Your task to perform on an android device: Add "razer kraken" to the cart on target Image 0: 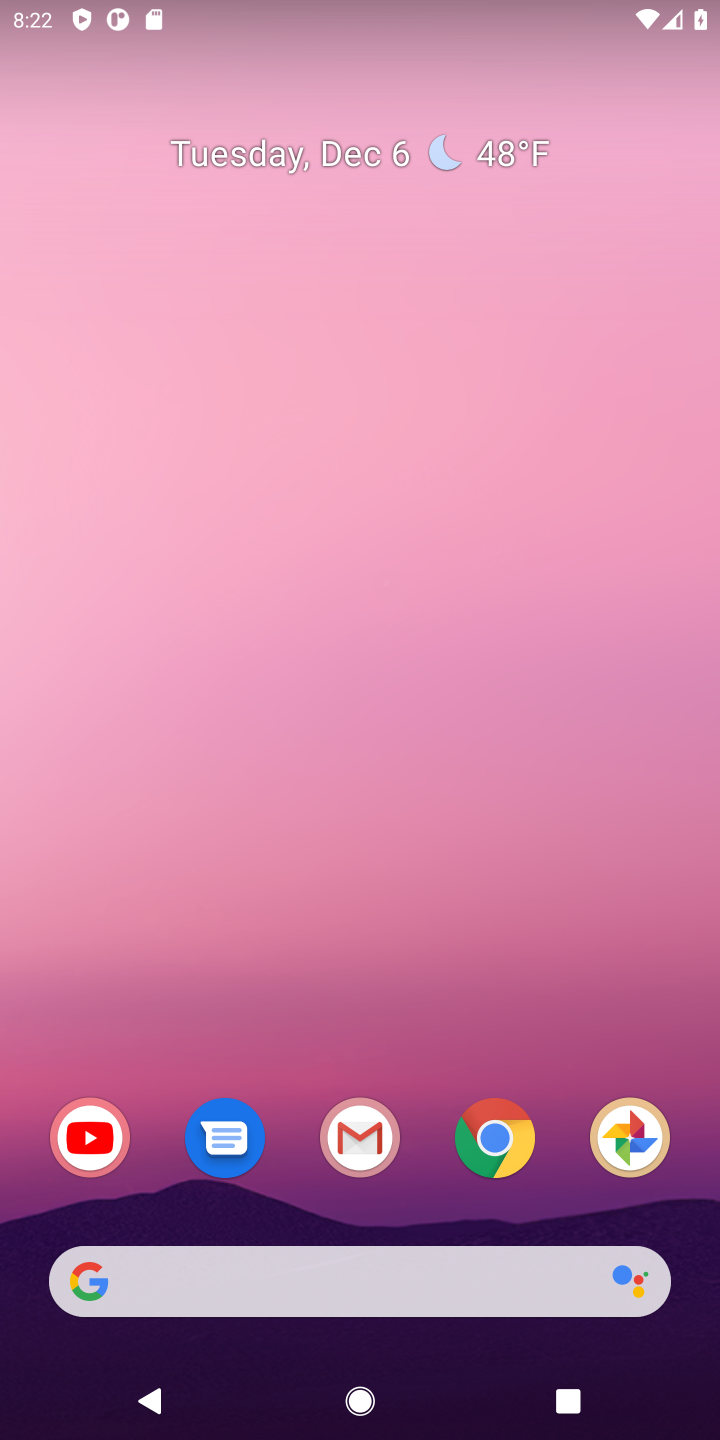
Step 0: click (492, 1150)
Your task to perform on an android device: Add "razer kraken" to the cart on target Image 1: 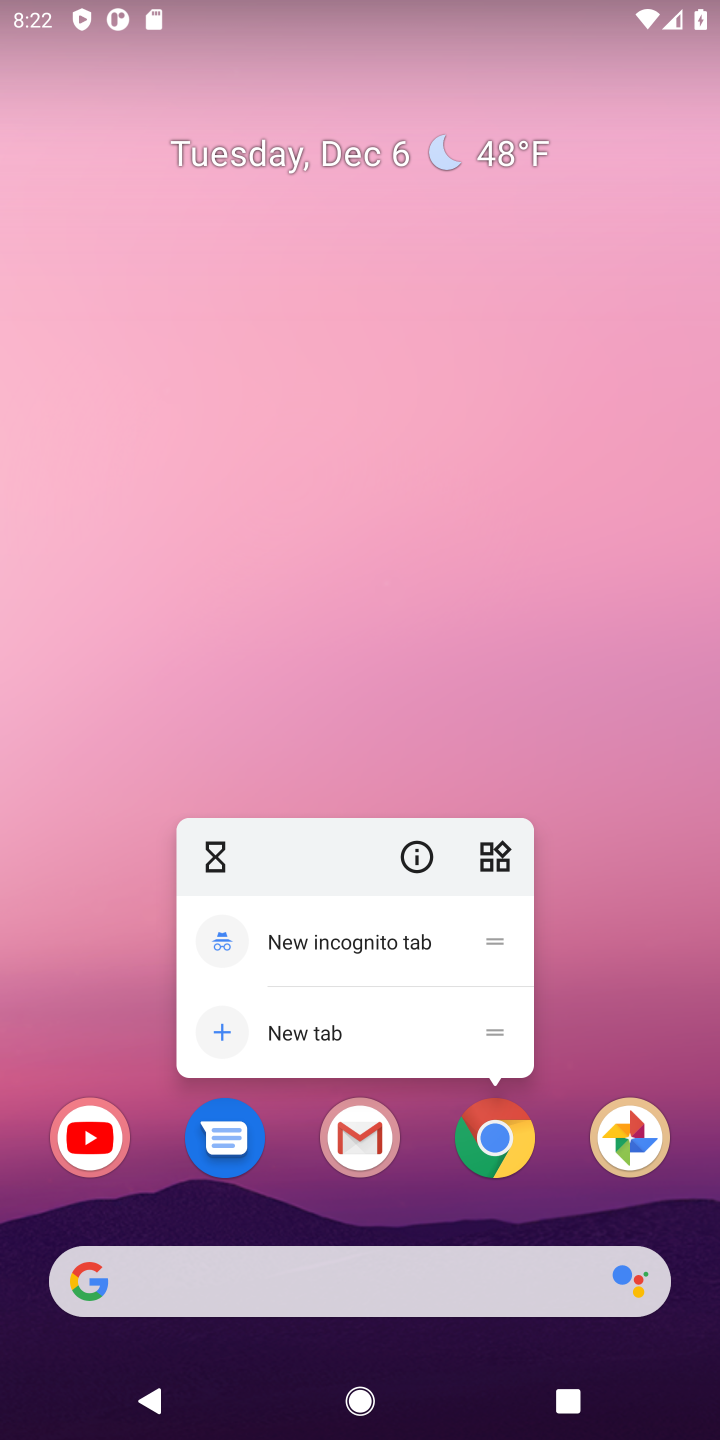
Step 1: click (492, 1150)
Your task to perform on an android device: Add "razer kraken" to the cart on target Image 2: 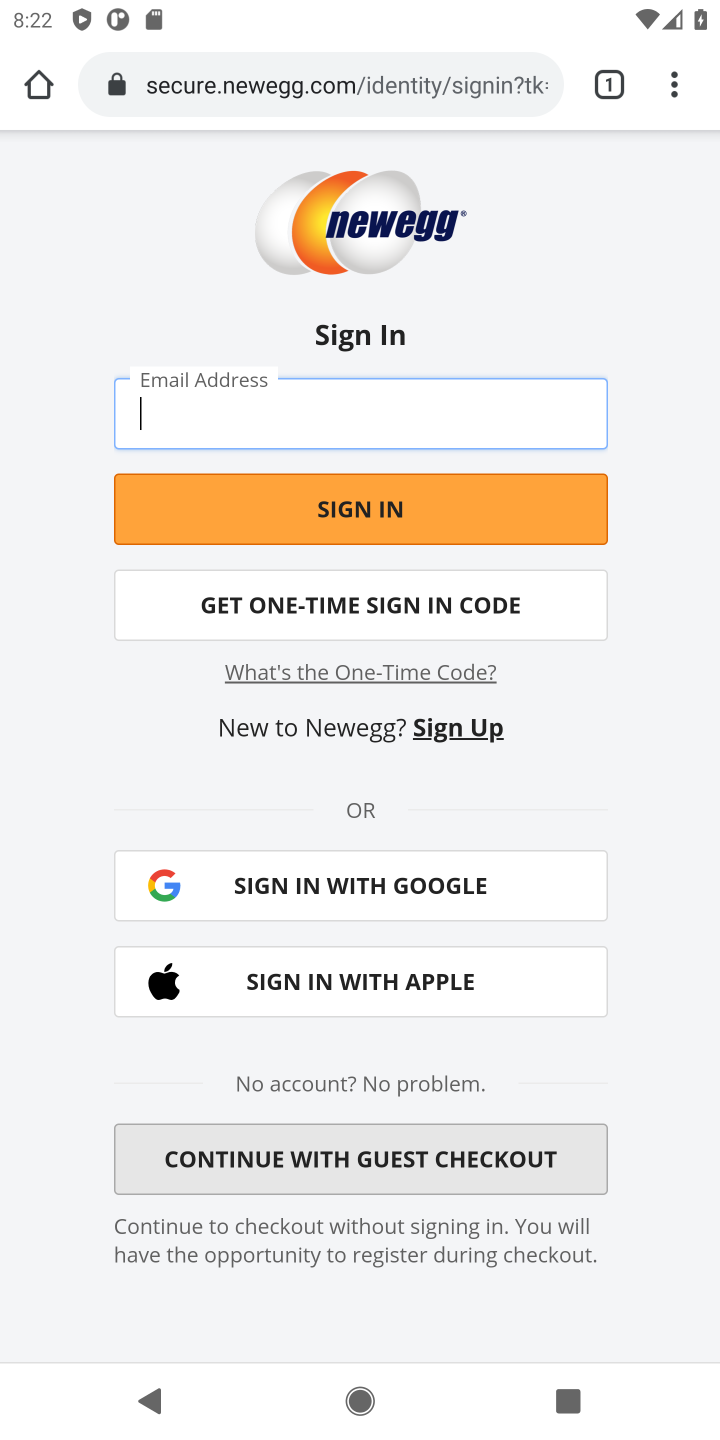
Step 2: click (313, 74)
Your task to perform on an android device: Add "razer kraken" to the cart on target Image 3: 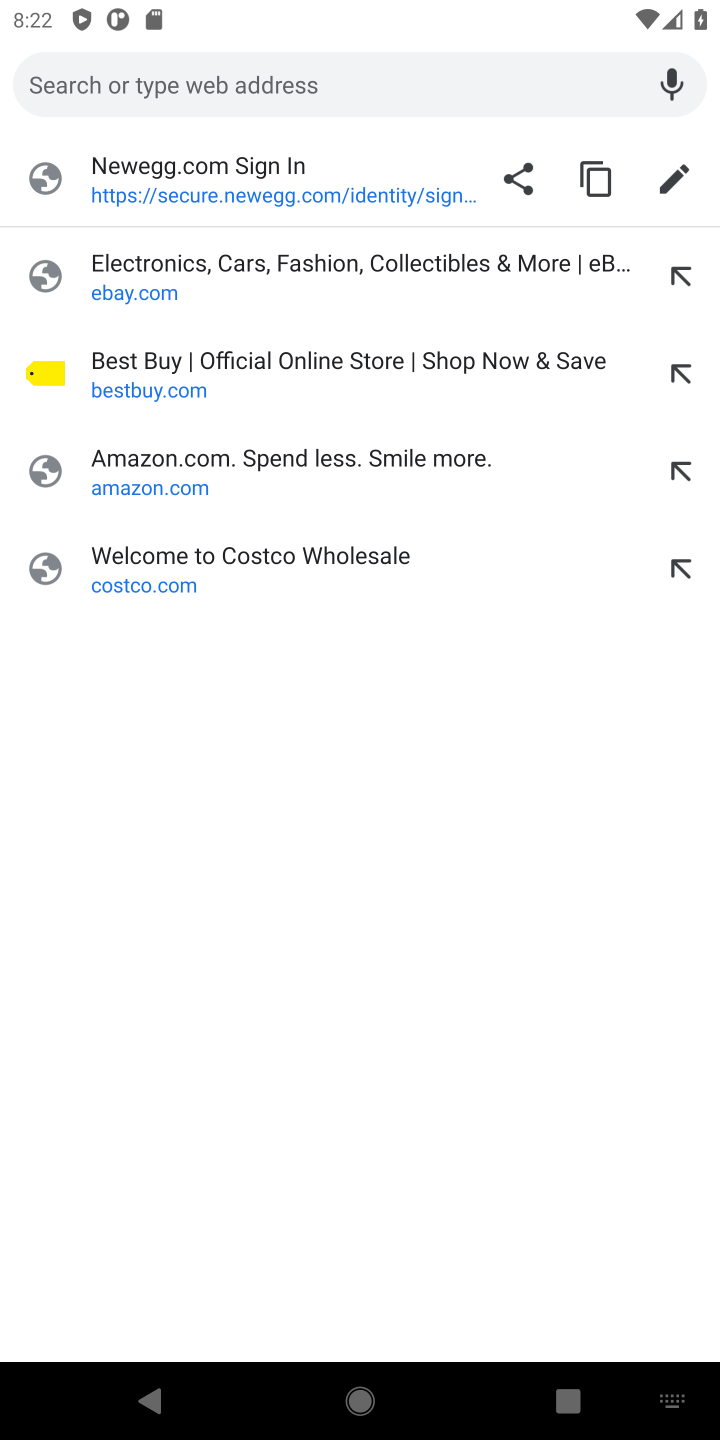
Step 3: type "target.com"
Your task to perform on an android device: Add "razer kraken" to the cart on target Image 4: 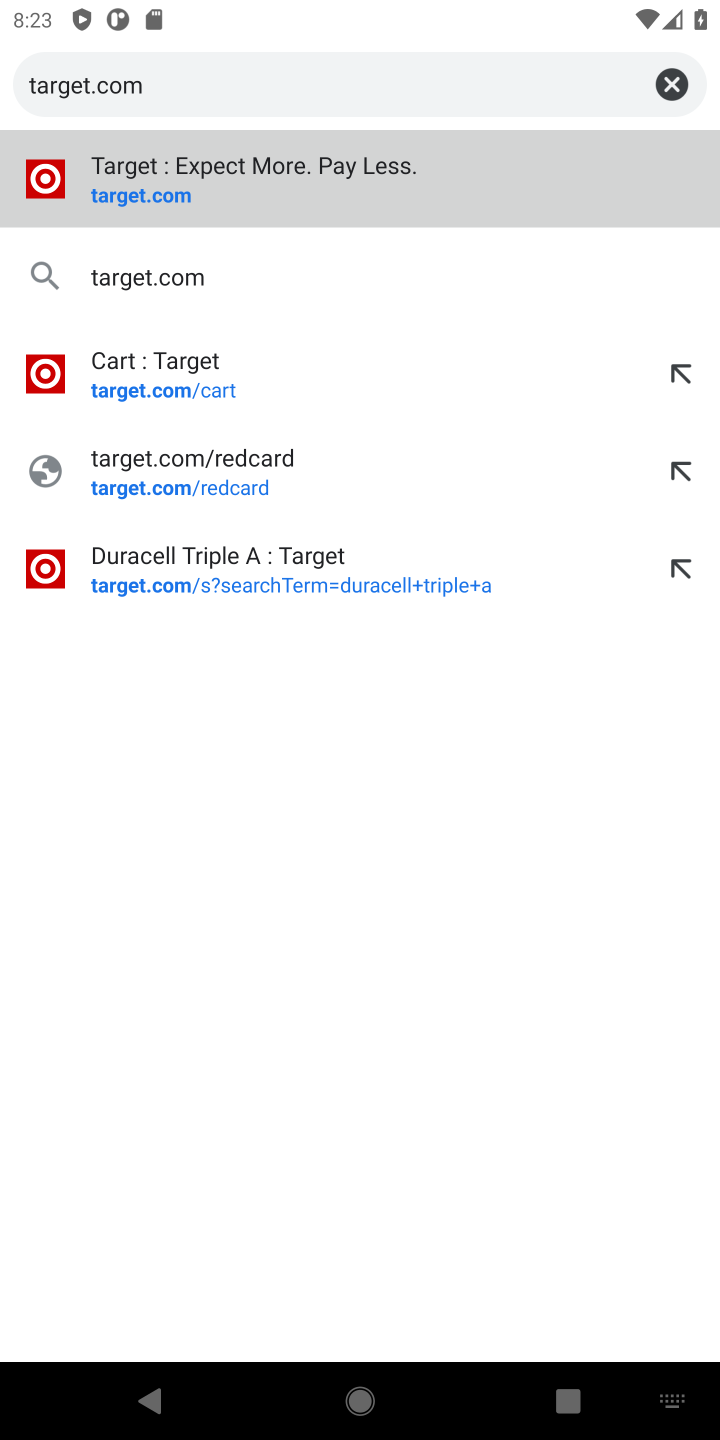
Step 4: click (150, 193)
Your task to perform on an android device: Add "razer kraken" to the cart on target Image 5: 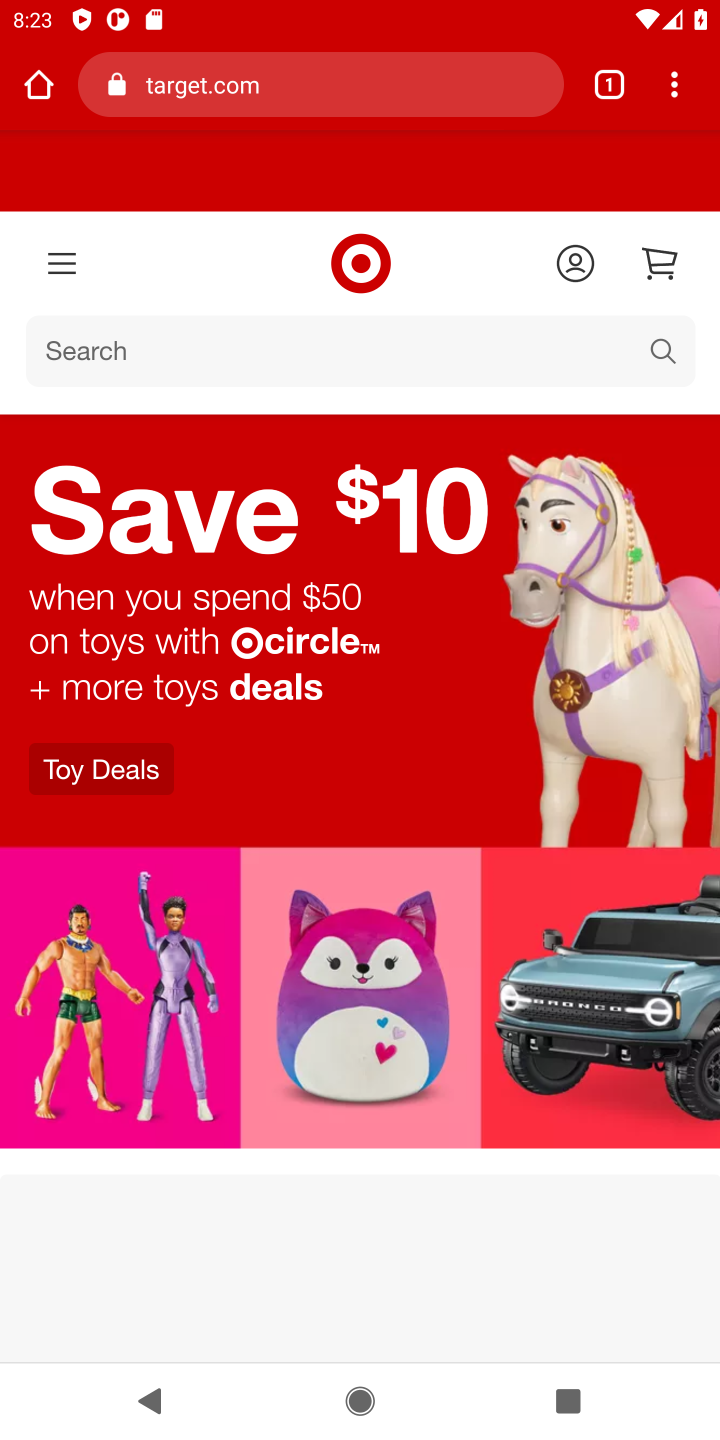
Step 5: click (121, 345)
Your task to perform on an android device: Add "razer kraken" to the cart on target Image 6: 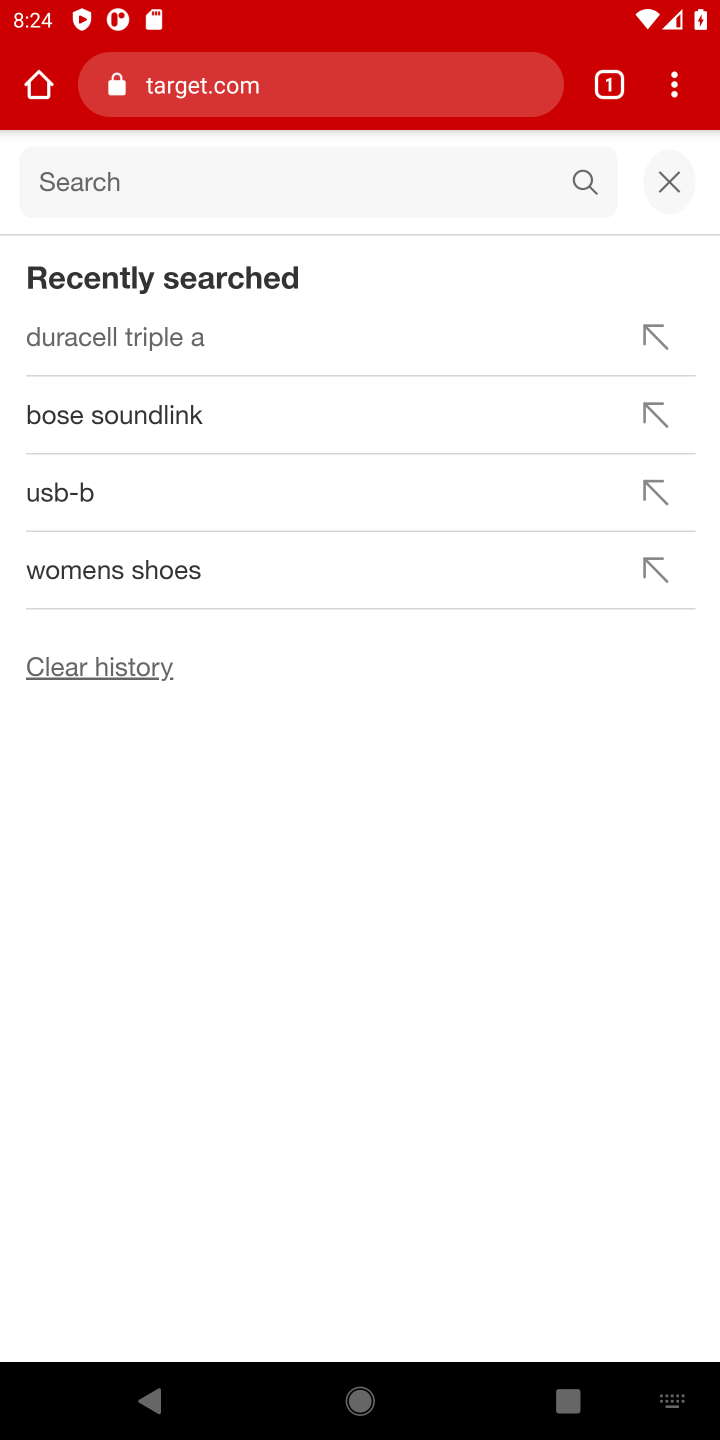
Step 6: type "razer kraken"
Your task to perform on an android device: Add "razer kraken" to the cart on target Image 7: 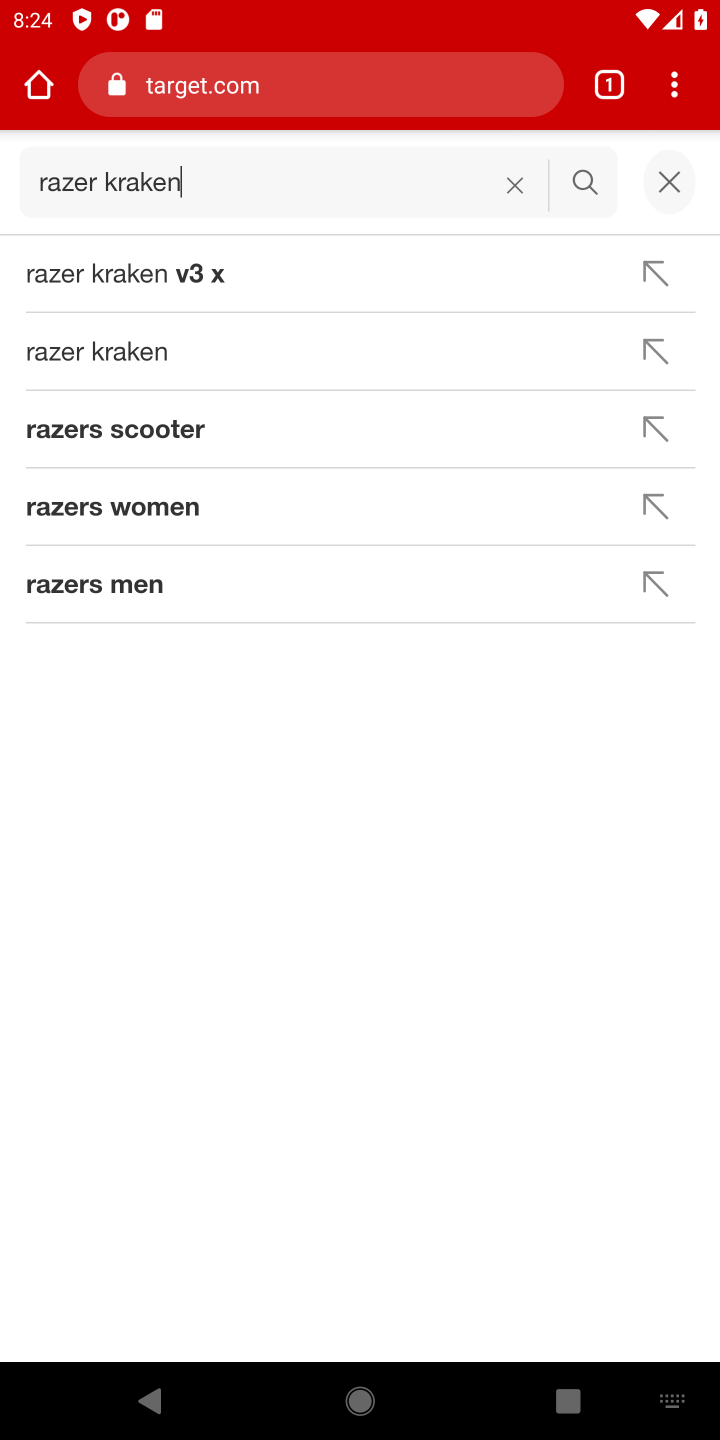
Step 7: click (113, 374)
Your task to perform on an android device: Add "razer kraken" to the cart on target Image 8: 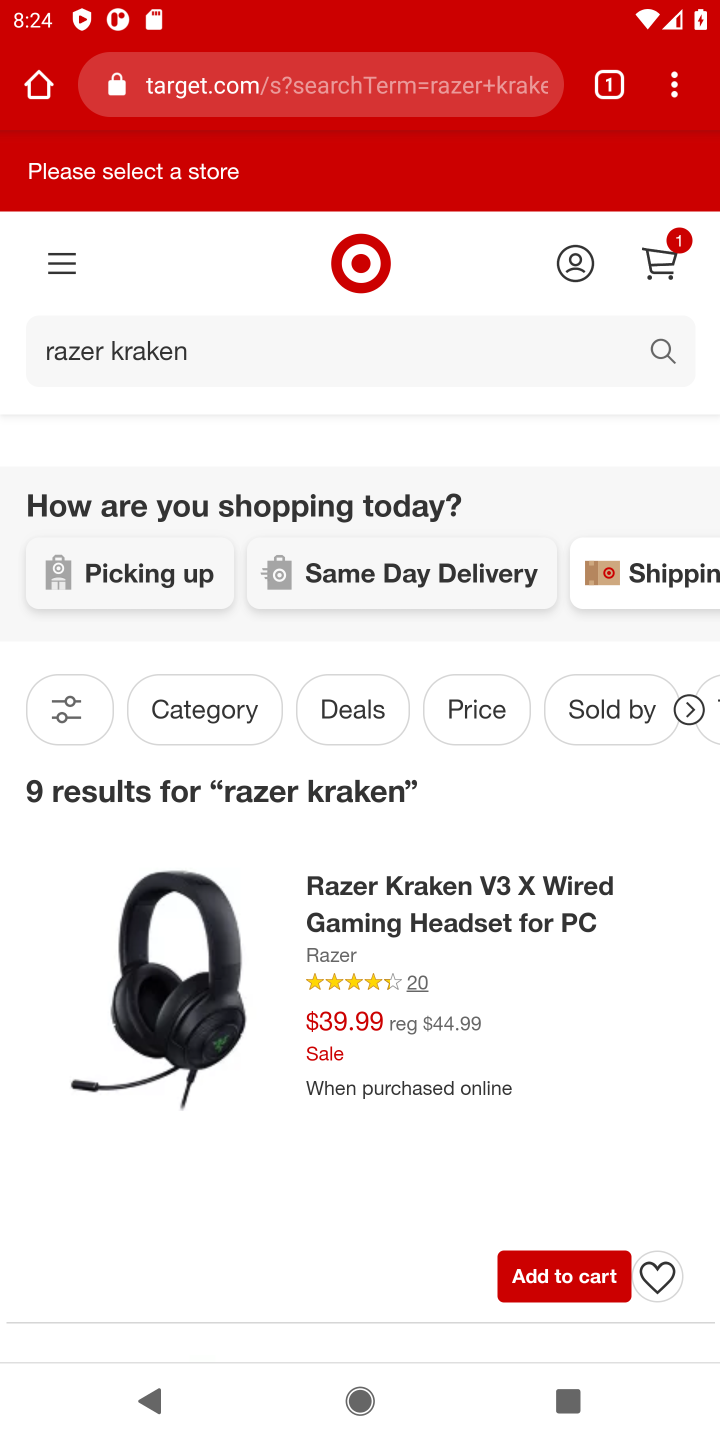
Step 8: click (544, 1272)
Your task to perform on an android device: Add "razer kraken" to the cart on target Image 9: 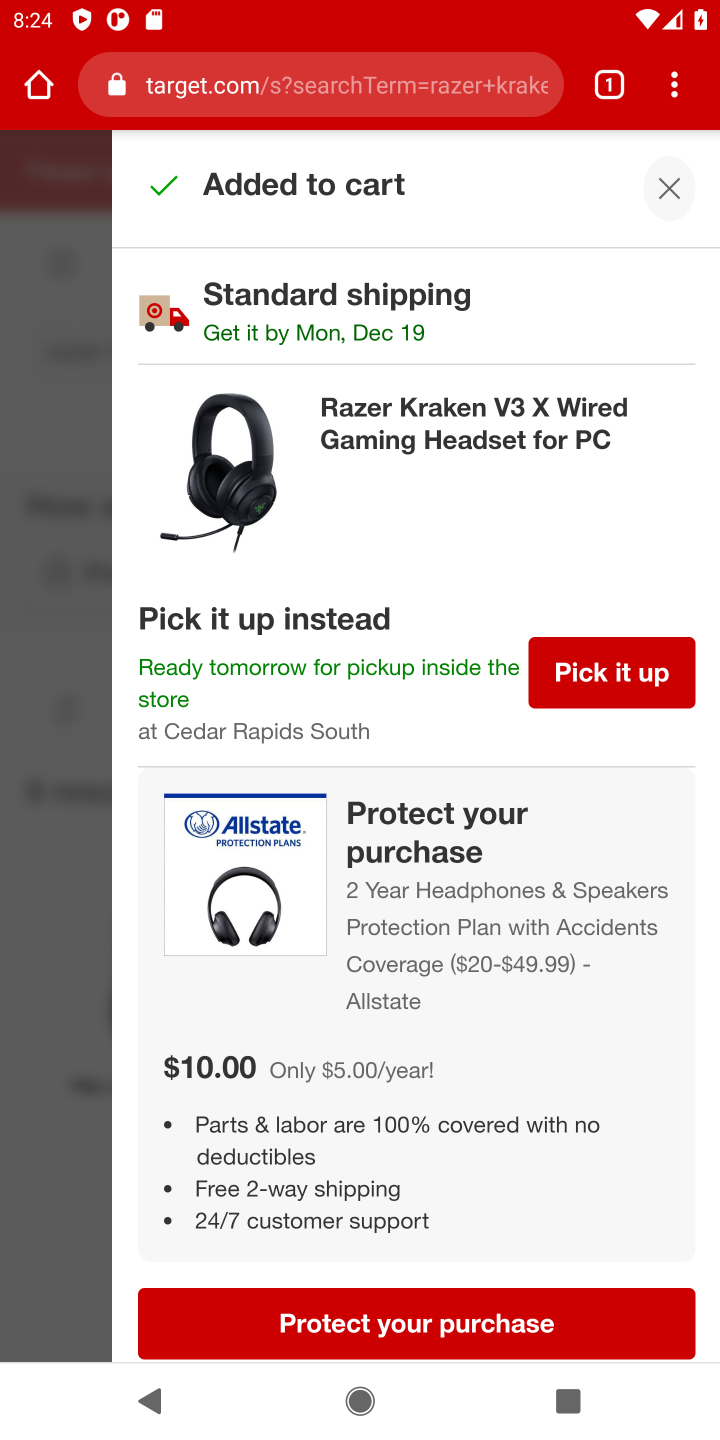
Step 9: task complete